Your task to perform on an android device: Open Chrome and go to settings Image 0: 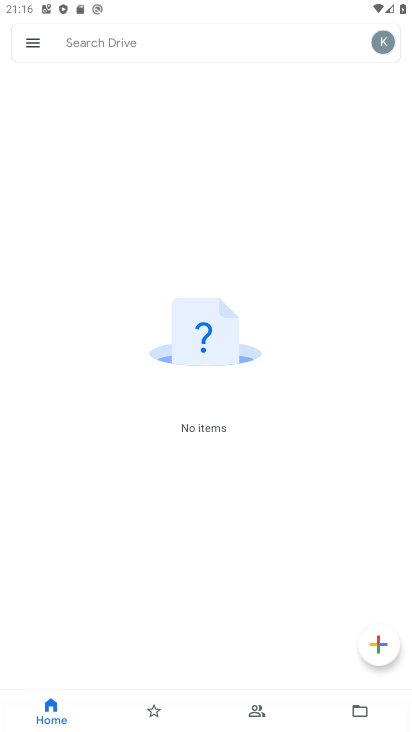
Step 0: press home button
Your task to perform on an android device: Open Chrome and go to settings Image 1: 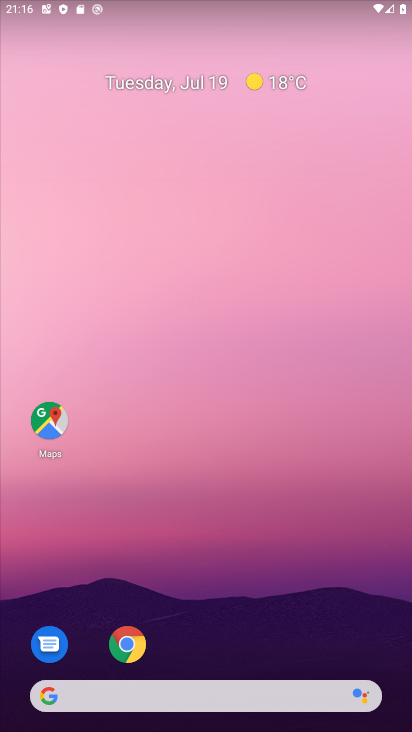
Step 1: drag from (211, 724) to (222, 203)
Your task to perform on an android device: Open Chrome and go to settings Image 2: 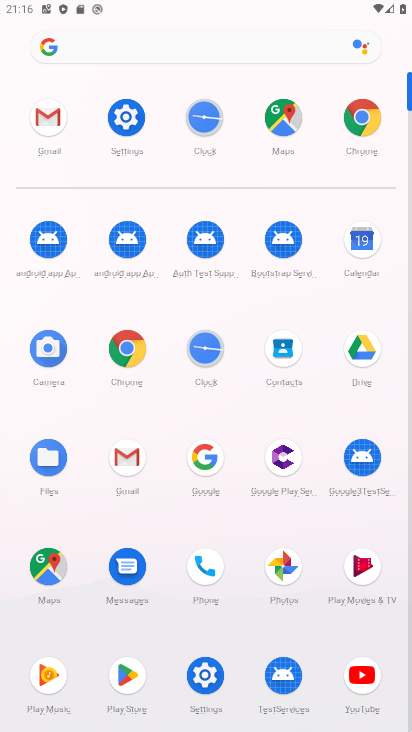
Step 2: click (127, 349)
Your task to perform on an android device: Open Chrome and go to settings Image 3: 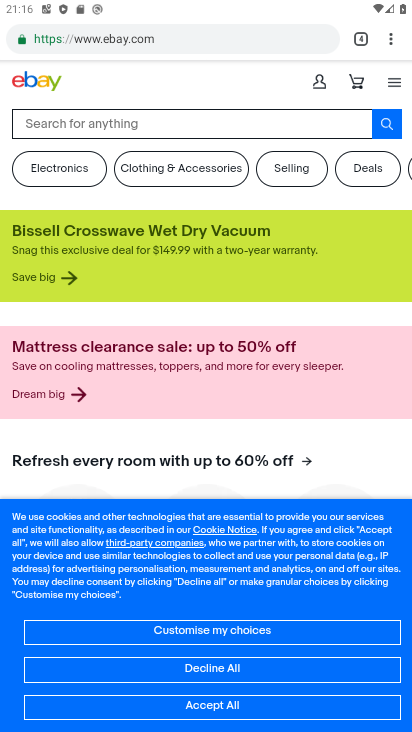
Step 3: click (389, 39)
Your task to perform on an android device: Open Chrome and go to settings Image 4: 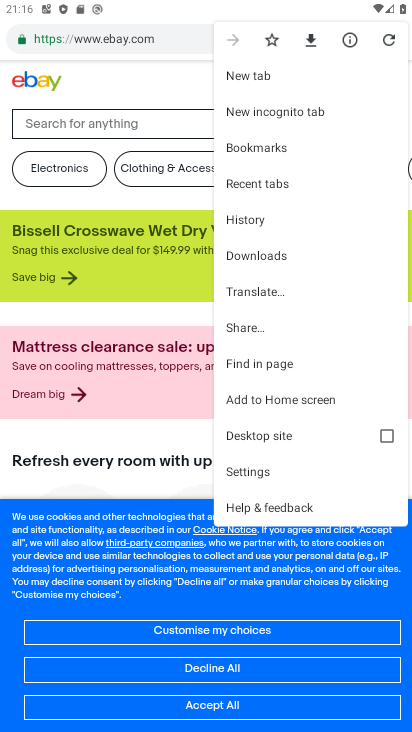
Step 4: click (251, 470)
Your task to perform on an android device: Open Chrome and go to settings Image 5: 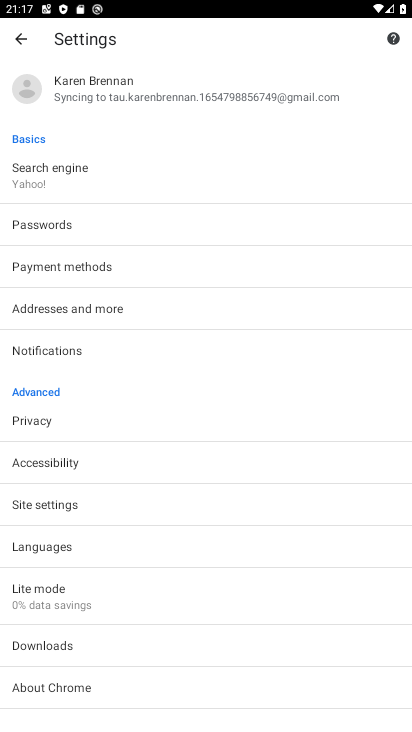
Step 5: task complete